Your task to perform on an android device: toggle airplane mode Image 0: 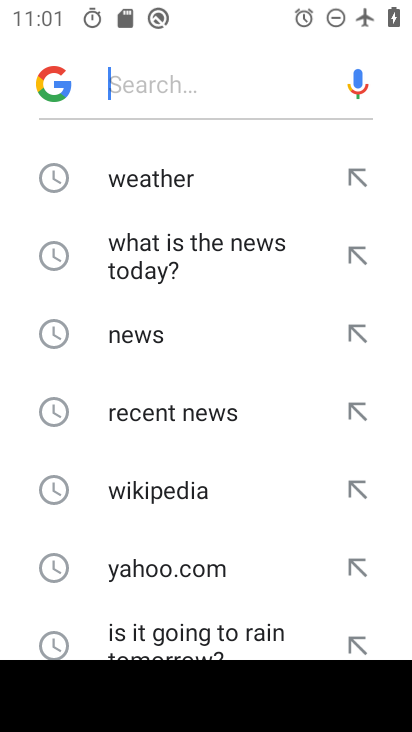
Step 0: press home button
Your task to perform on an android device: toggle airplane mode Image 1: 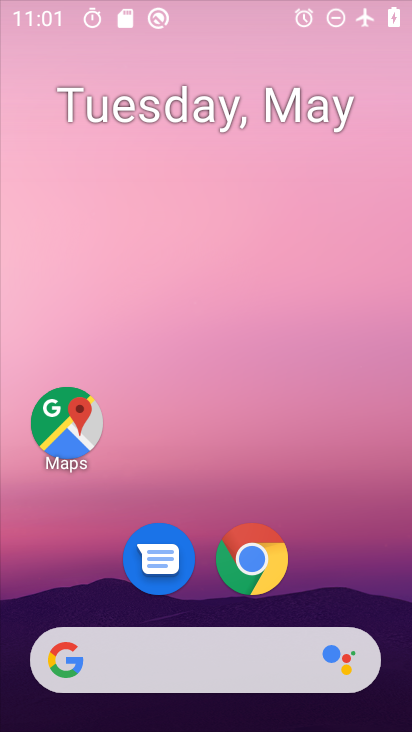
Step 1: drag from (240, 6) to (317, 445)
Your task to perform on an android device: toggle airplane mode Image 2: 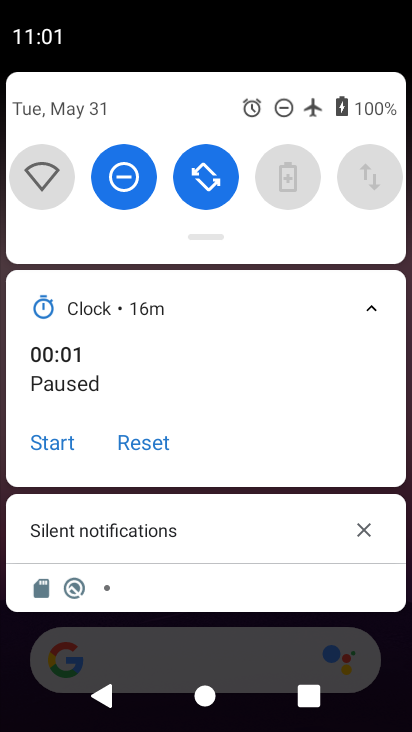
Step 2: drag from (240, 226) to (252, 638)
Your task to perform on an android device: toggle airplane mode Image 3: 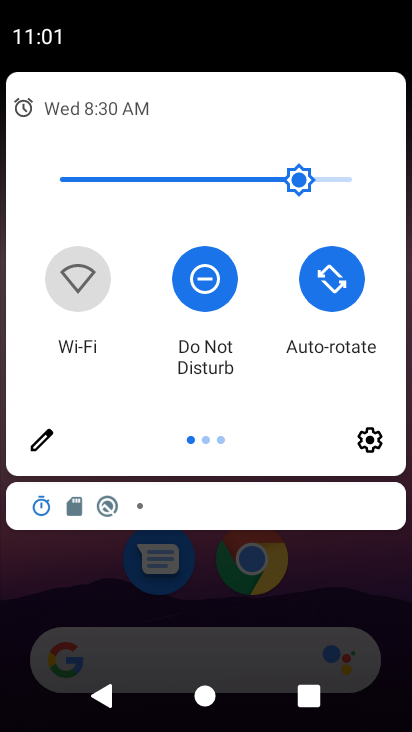
Step 3: drag from (338, 332) to (72, 326)
Your task to perform on an android device: toggle airplane mode Image 4: 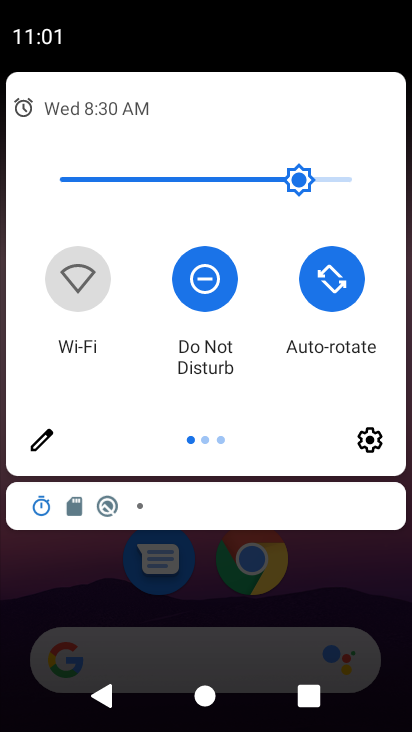
Step 4: drag from (352, 332) to (21, 326)
Your task to perform on an android device: toggle airplane mode Image 5: 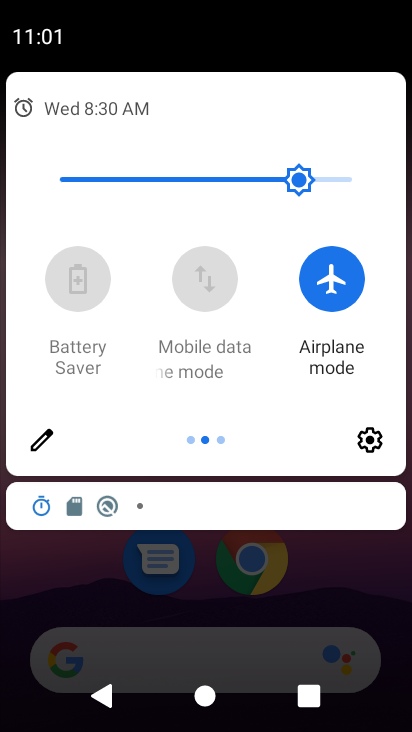
Step 5: click (343, 284)
Your task to perform on an android device: toggle airplane mode Image 6: 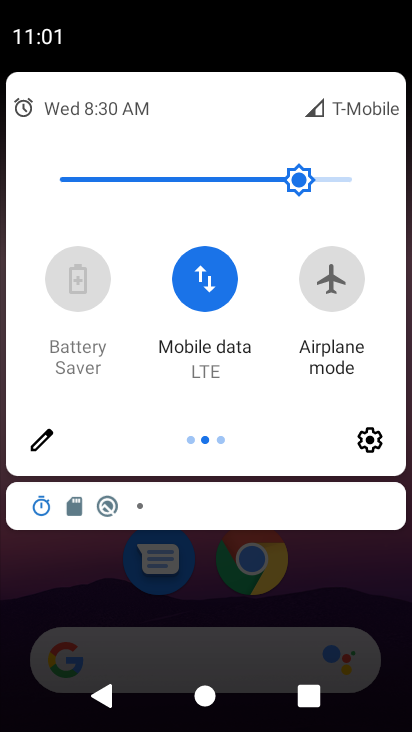
Step 6: task complete